Your task to perform on an android device: Toggle the flashlight Image 0: 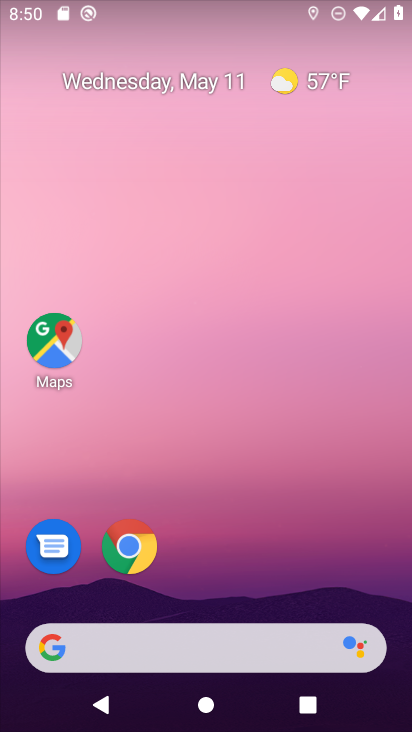
Step 0: drag from (192, 594) to (178, 324)
Your task to perform on an android device: Toggle the flashlight Image 1: 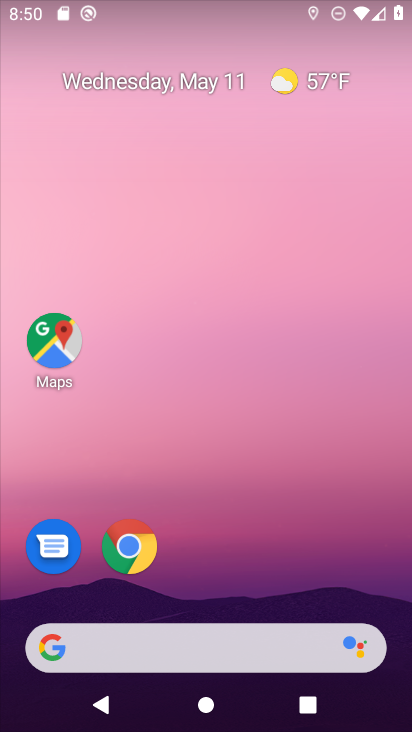
Step 1: drag from (212, 610) to (212, 244)
Your task to perform on an android device: Toggle the flashlight Image 2: 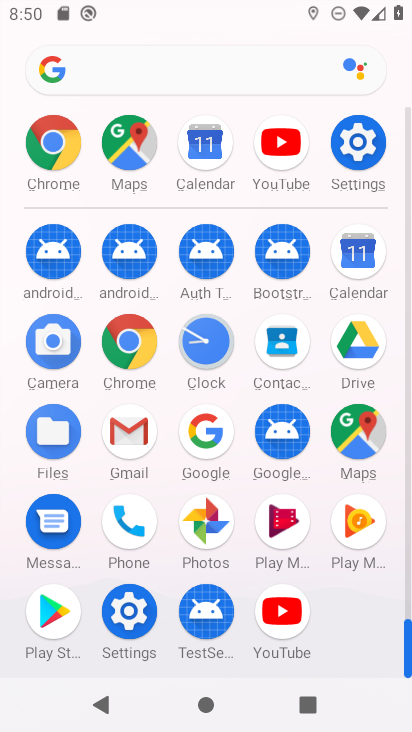
Step 2: click (361, 169)
Your task to perform on an android device: Toggle the flashlight Image 3: 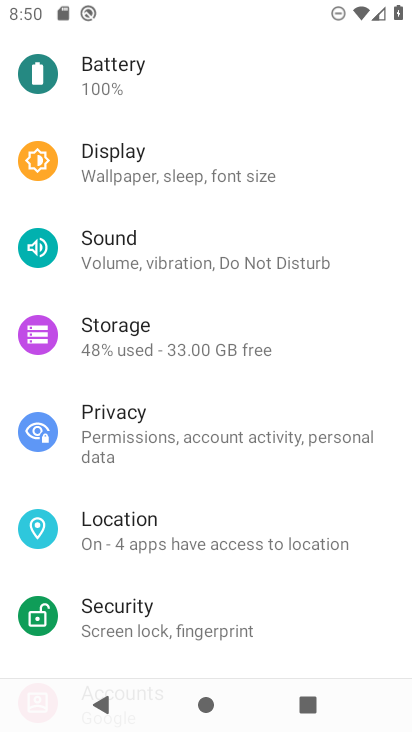
Step 3: task complete